Your task to perform on an android device: manage bookmarks in the chrome app Image 0: 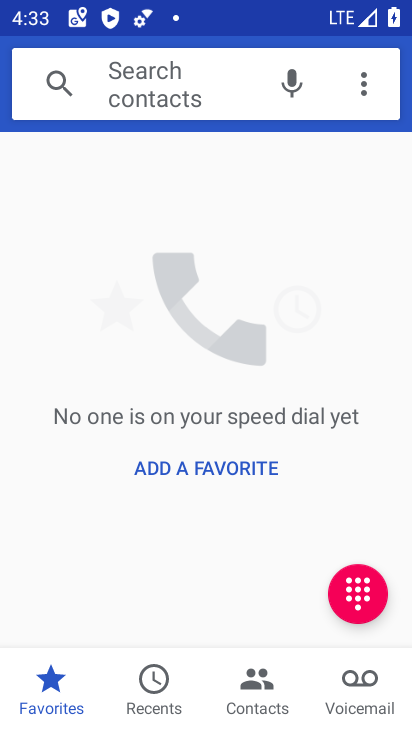
Step 0: press back button
Your task to perform on an android device: manage bookmarks in the chrome app Image 1: 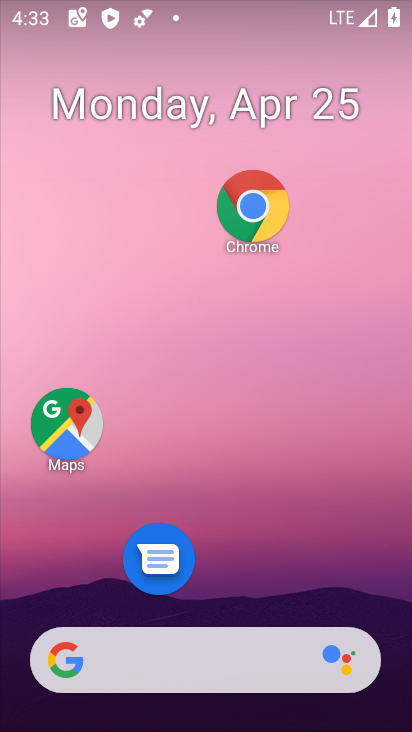
Step 1: click (254, 203)
Your task to perform on an android device: manage bookmarks in the chrome app Image 2: 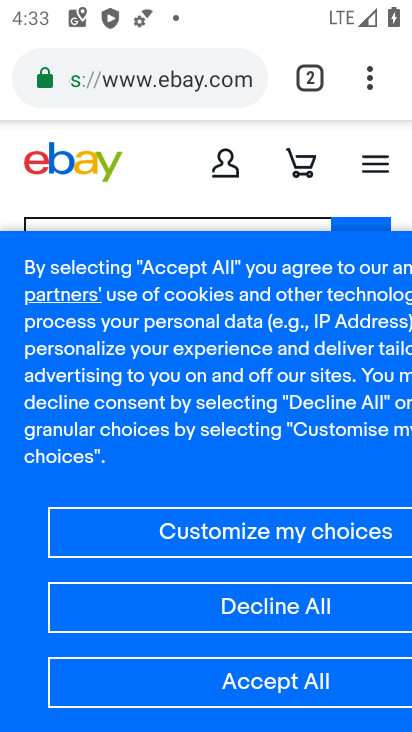
Step 2: click (379, 74)
Your task to perform on an android device: manage bookmarks in the chrome app Image 3: 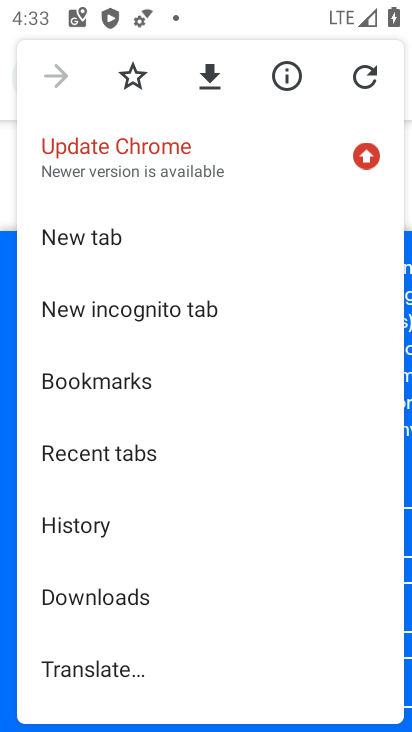
Step 3: click (100, 380)
Your task to perform on an android device: manage bookmarks in the chrome app Image 4: 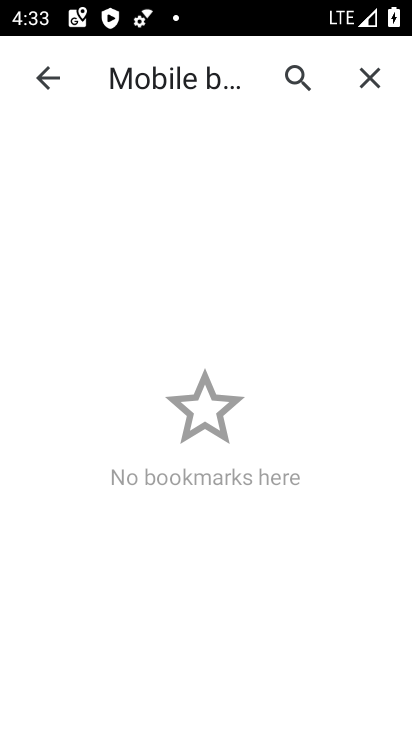
Step 4: task complete